Your task to perform on an android device: add a contact Image 0: 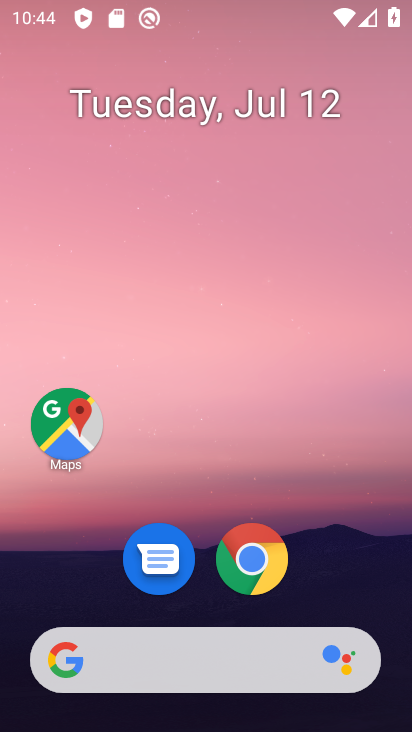
Step 0: drag from (253, 575) to (283, 214)
Your task to perform on an android device: add a contact Image 1: 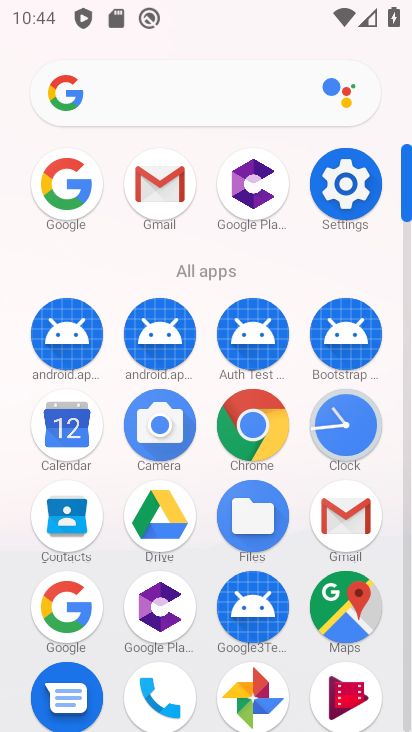
Step 1: click (83, 518)
Your task to perform on an android device: add a contact Image 2: 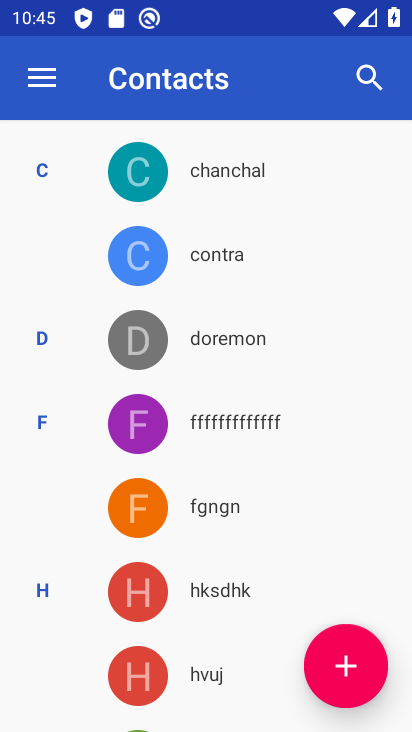
Step 2: click (363, 676)
Your task to perform on an android device: add a contact Image 3: 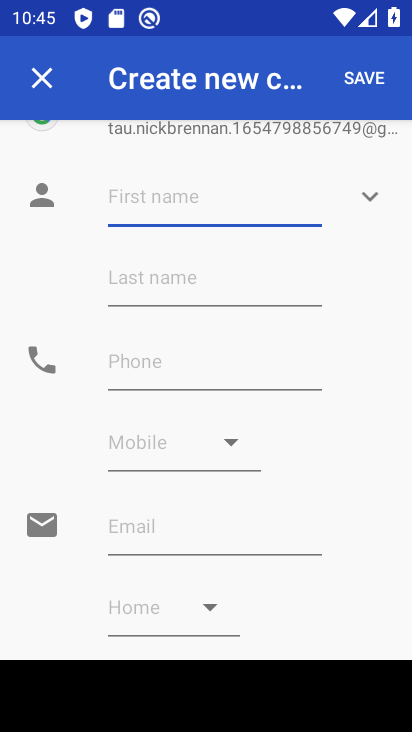
Step 3: type "jhfjgfj"
Your task to perform on an android device: add a contact Image 4: 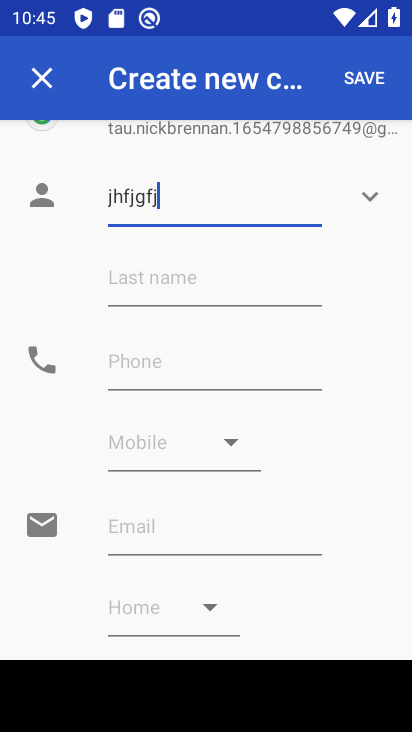
Step 4: click (195, 356)
Your task to perform on an android device: add a contact Image 5: 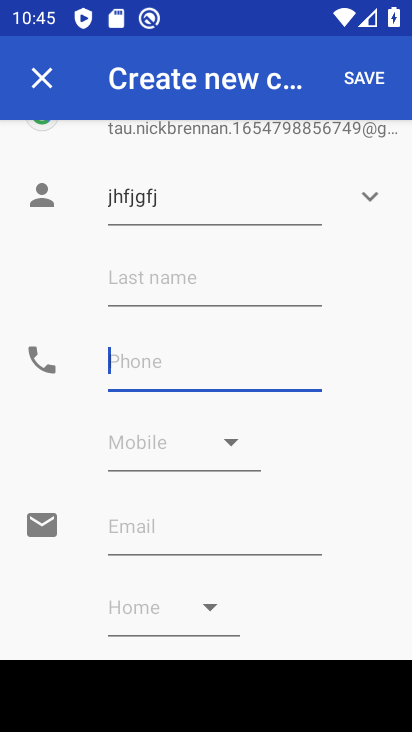
Step 5: type "9887509875"
Your task to perform on an android device: add a contact Image 6: 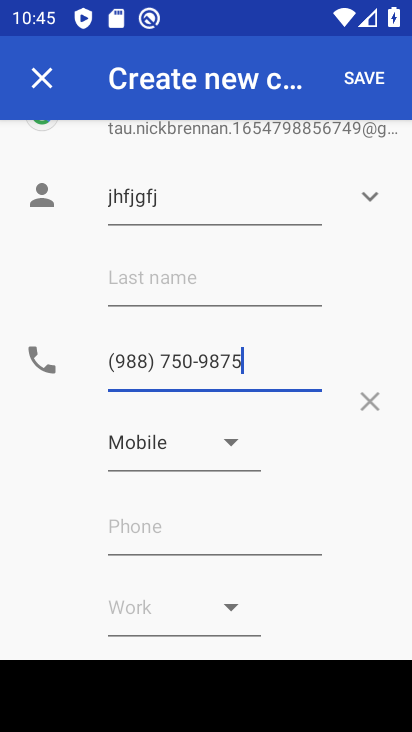
Step 6: click (367, 86)
Your task to perform on an android device: add a contact Image 7: 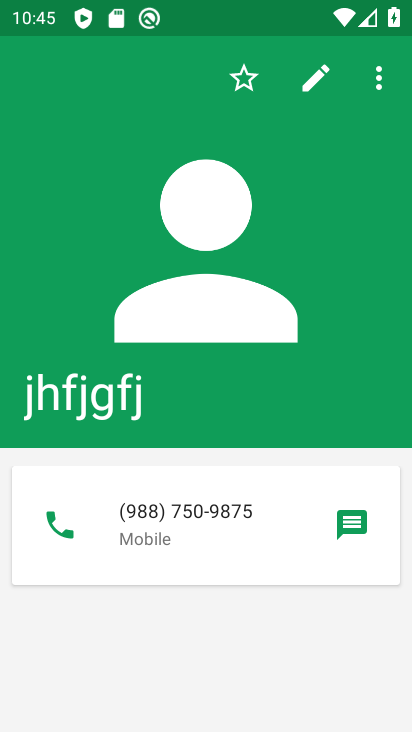
Step 7: task complete